Your task to perform on an android device: check android version Image 0: 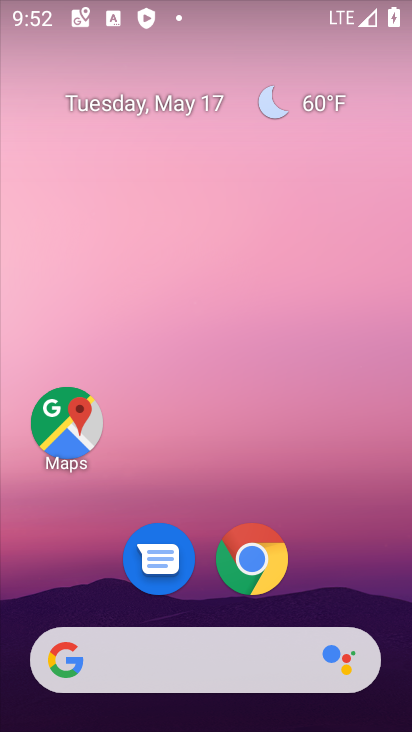
Step 0: drag from (205, 617) to (227, 192)
Your task to perform on an android device: check android version Image 1: 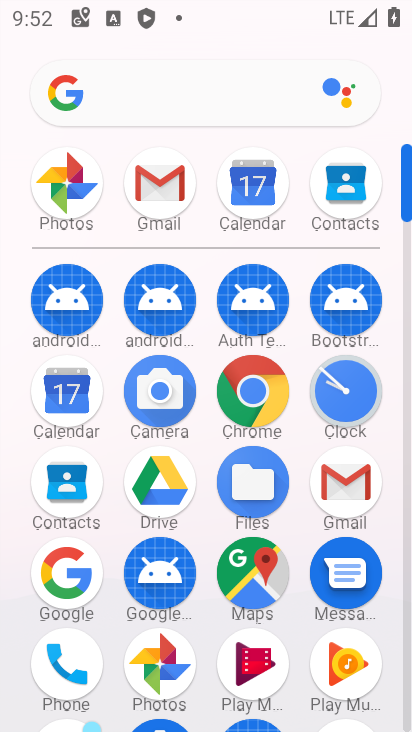
Step 1: drag from (196, 619) to (235, 303)
Your task to perform on an android device: check android version Image 2: 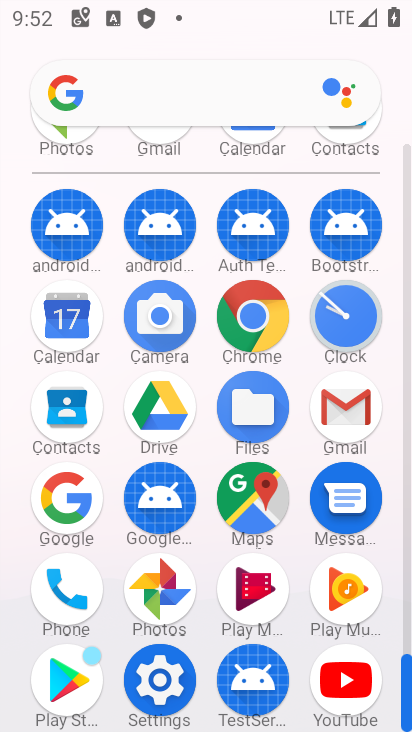
Step 2: click (172, 643)
Your task to perform on an android device: check android version Image 3: 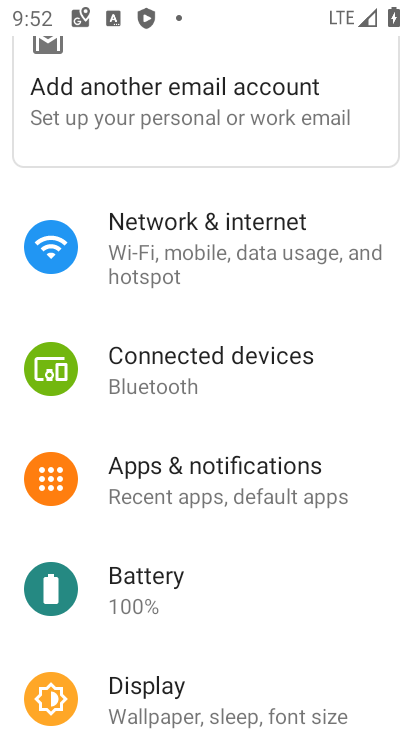
Step 3: drag from (199, 594) to (228, 365)
Your task to perform on an android device: check android version Image 4: 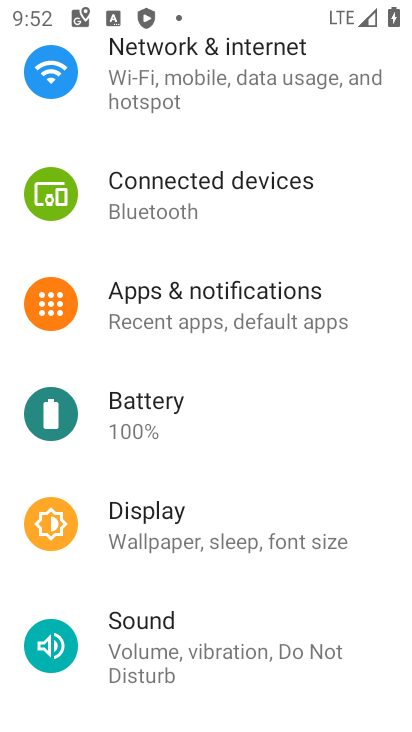
Step 4: drag from (241, 609) to (246, 351)
Your task to perform on an android device: check android version Image 5: 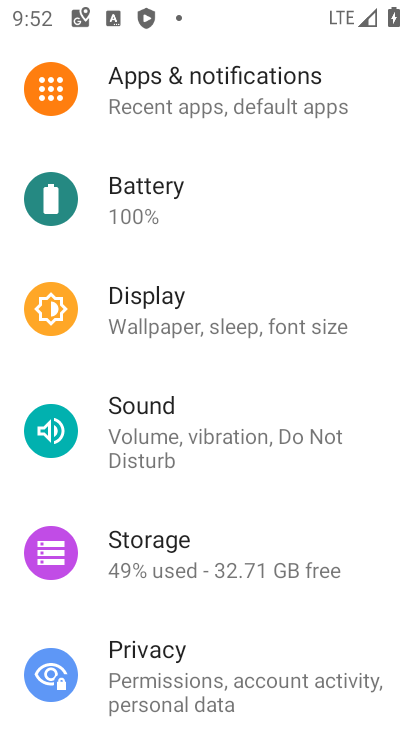
Step 5: drag from (246, 628) to (253, 351)
Your task to perform on an android device: check android version Image 6: 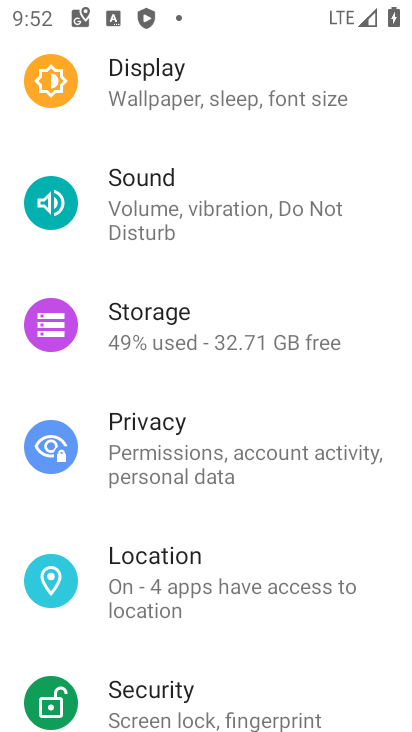
Step 6: drag from (254, 648) to (256, 290)
Your task to perform on an android device: check android version Image 7: 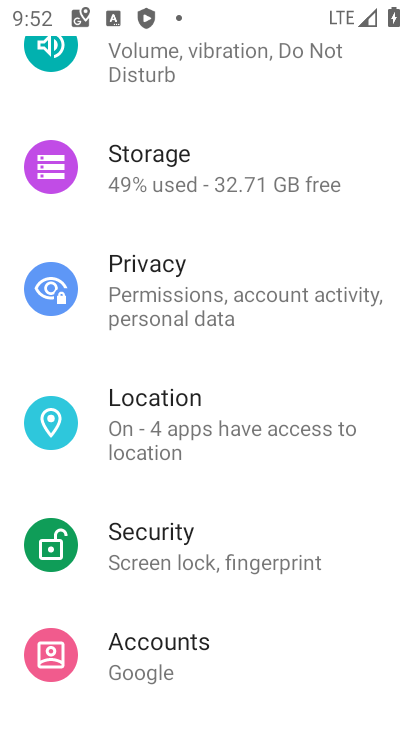
Step 7: drag from (246, 595) to (253, 328)
Your task to perform on an android device: check android version Image 8: 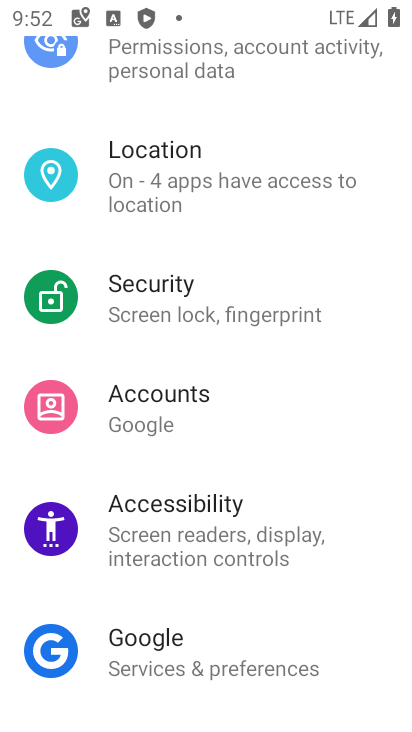
Step 8: drag from (255, 655) to (263, 419)
Your task to perform on an android device: check android version Image 9: 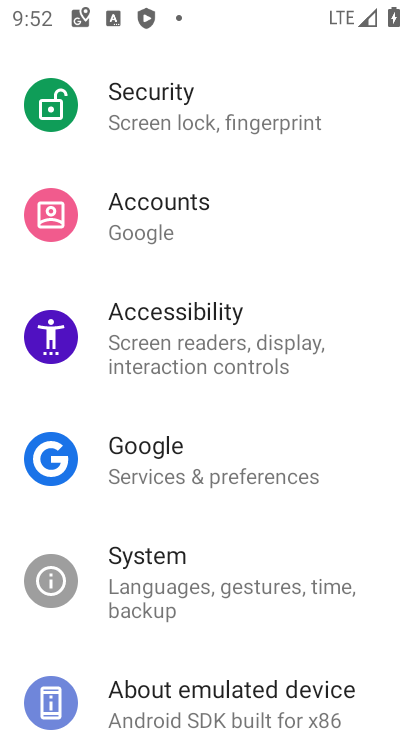
Step 9: drag from (247, 651) to (254, 400)
Your task to perform on an android device: check android version Image 10: 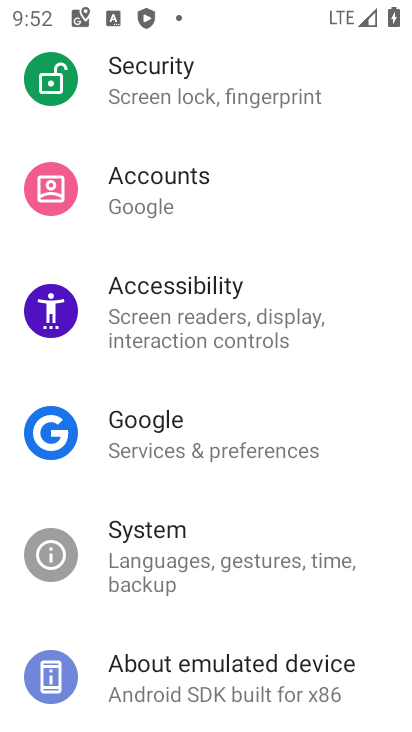
Step 10: click (251, 662)
Your task to perform on an android device: check android version Image 11: 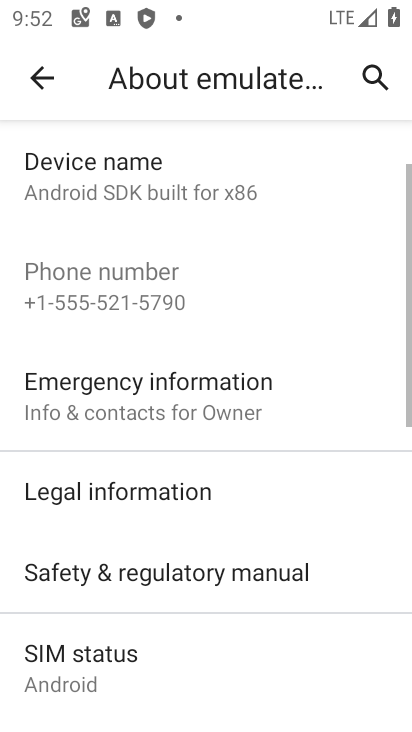
Step 11: drag from (220, 632) to (238, 374)
Your task to perform on an android device: check android version Image 12: 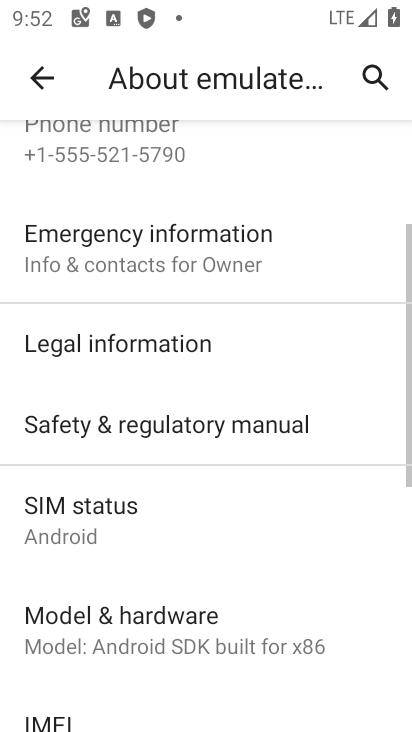
Step 12: drag from (201, 600) to (232, 310)
Your task to perform on an android device: check android version Image 13: 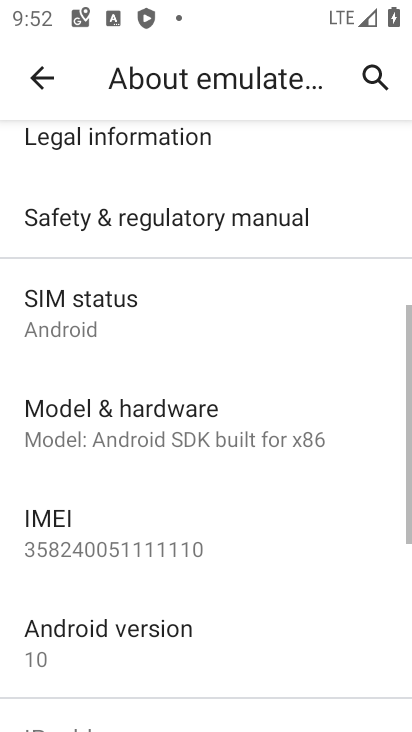
Step 13: click (152, 617)
Your task to perform on an android device: check android version Image 14: 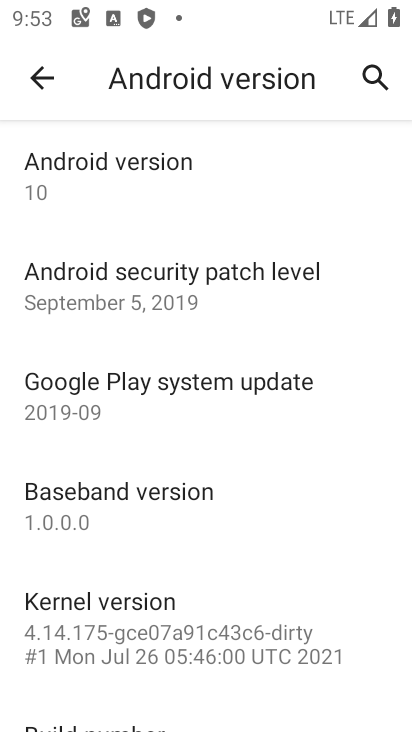
Step 14: click (148, 190)
Your task to perform on an android device: check android version Image 15: 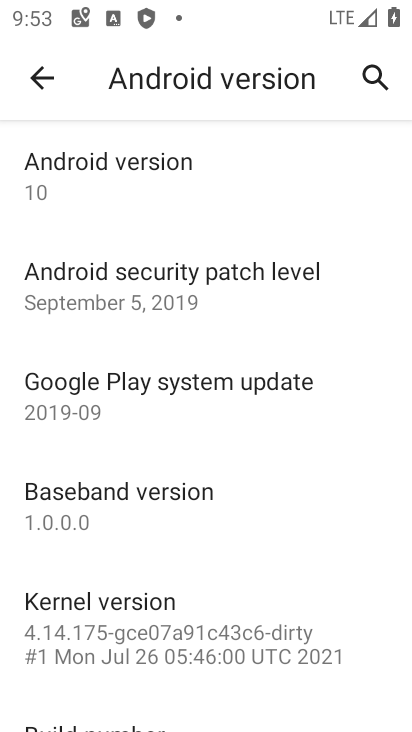
Step 15: click (148, 190)
Your task to perform on an android device: check android version Image 16: 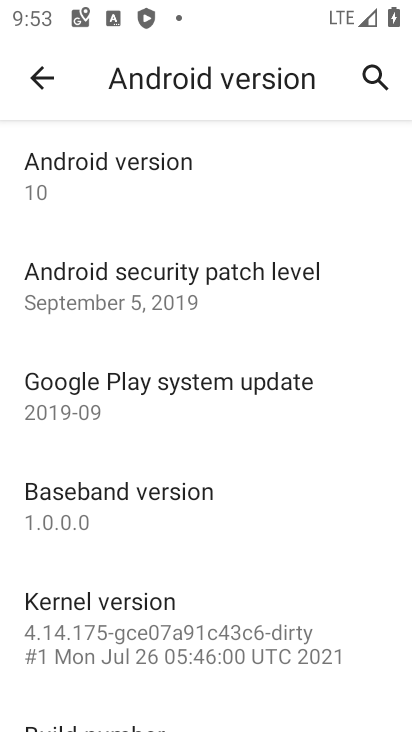
Step 16: task complete